Your task to perform on an android device: Open Google Maps and go to "Timeline" Image 0: 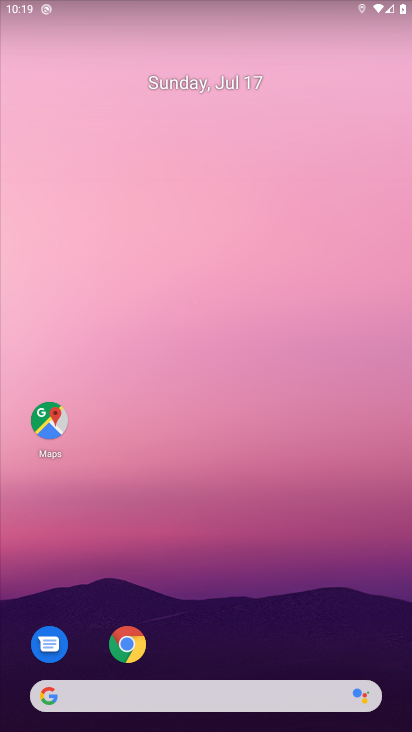
Step 0: press home button
Your task to perform on an android device: Open Google Maps and go to "Timeline" Image 1: 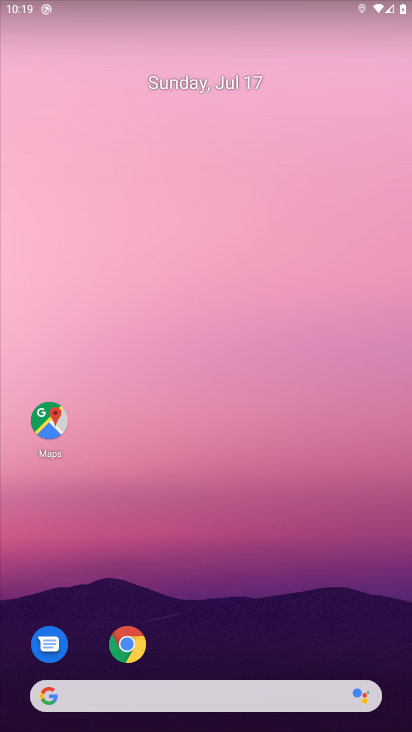
Step 1: drag from (285, 642) to (285, 88)
Your task to perform on an android device: Open Google Maps and go to "Timeline" Image 2: 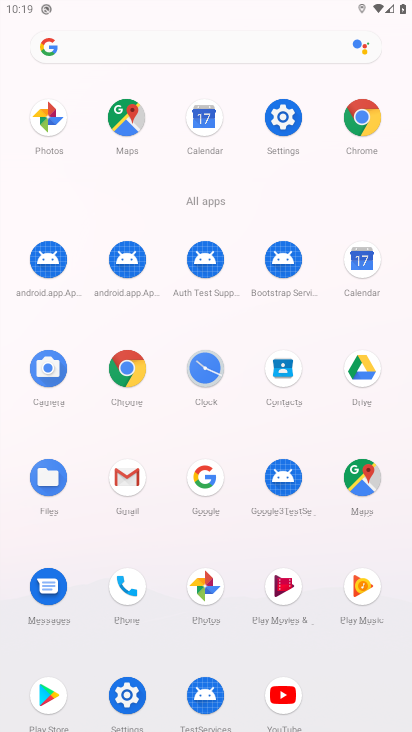
Step 2: click (129, 121)
Your task to perform on an android device: Open Google Maps and go to "Timeline" Image 3: 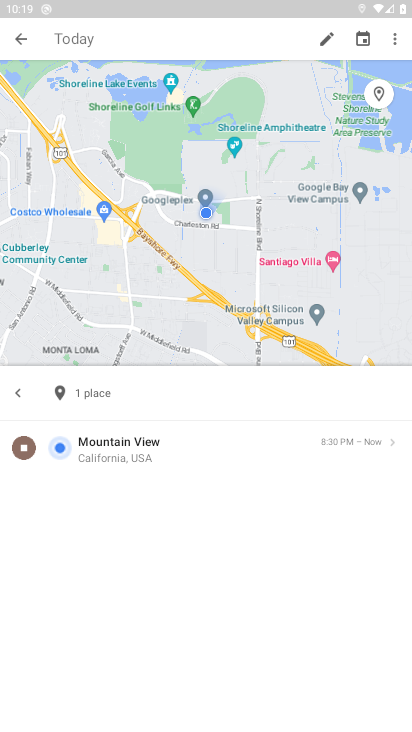
Step 3: click (10, 40)
Your task to perform on an android device: Open Google Maps and go to "Timeline" Image 4: 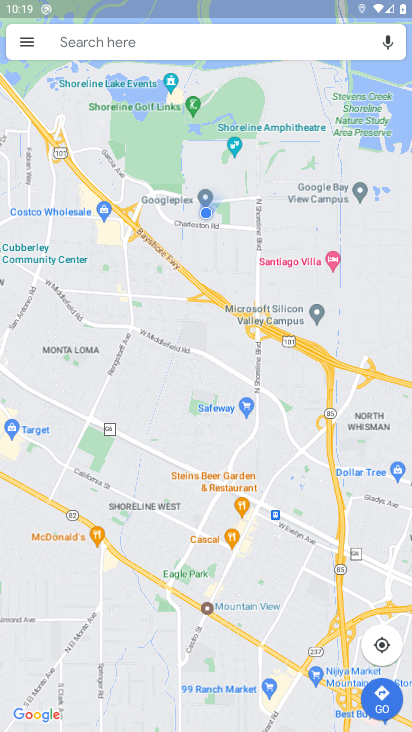
Step 4: click (22, 41)
Your task to perform on an android device: Open Google Maps and go to "Timeline" Image 5: 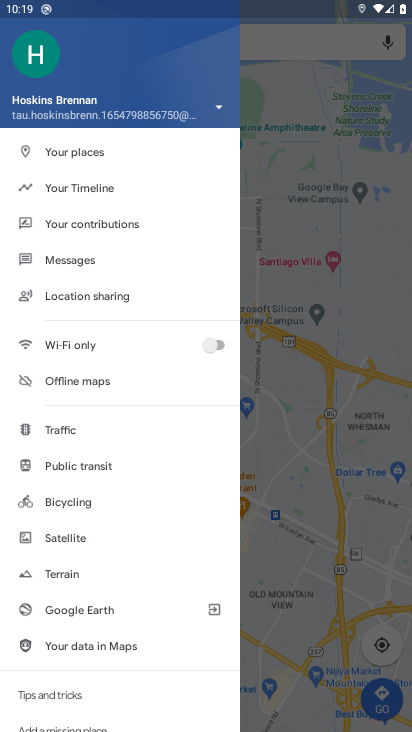
Step 5: click (73, 180)
Your task to perform on an android device: Open Google Maps and go to "Timeline" Image 6: 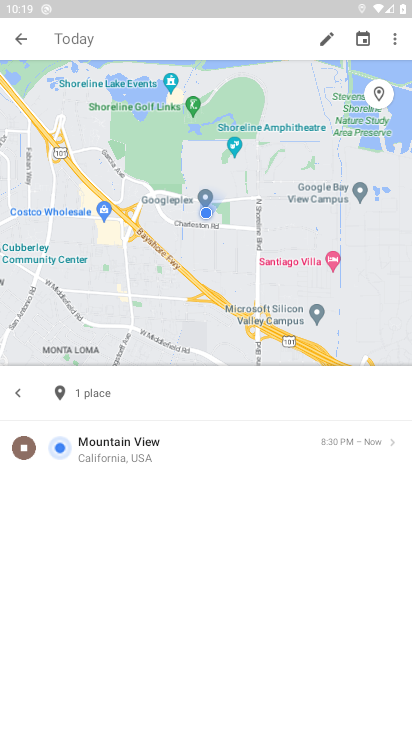
Step 6: task complete